Your task to perform on an android device: How do I get to the nearest Starbucks? Image 0: 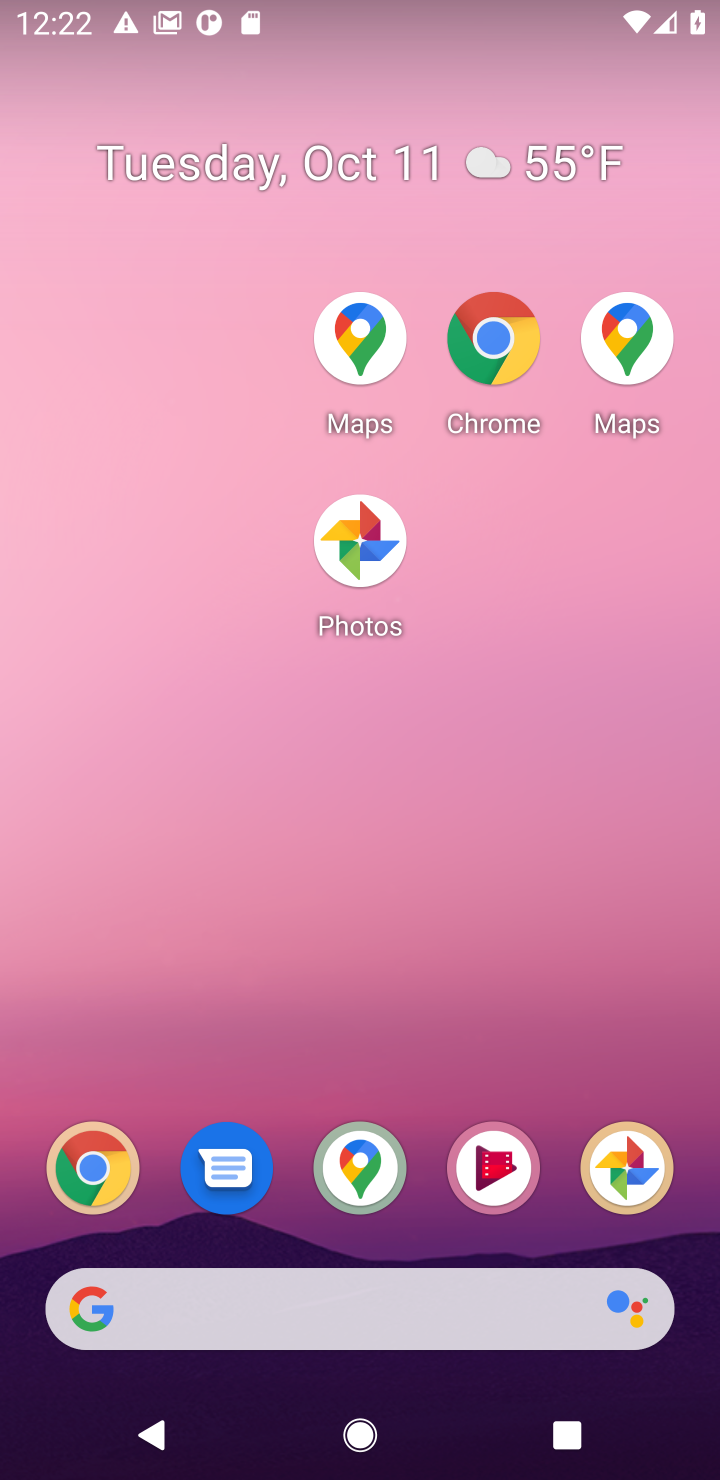
Step 0: drag from (485, 862) to (556, 42)
Your task to perform on an android device: How do I get to the nearest Starbucks? Image 1: 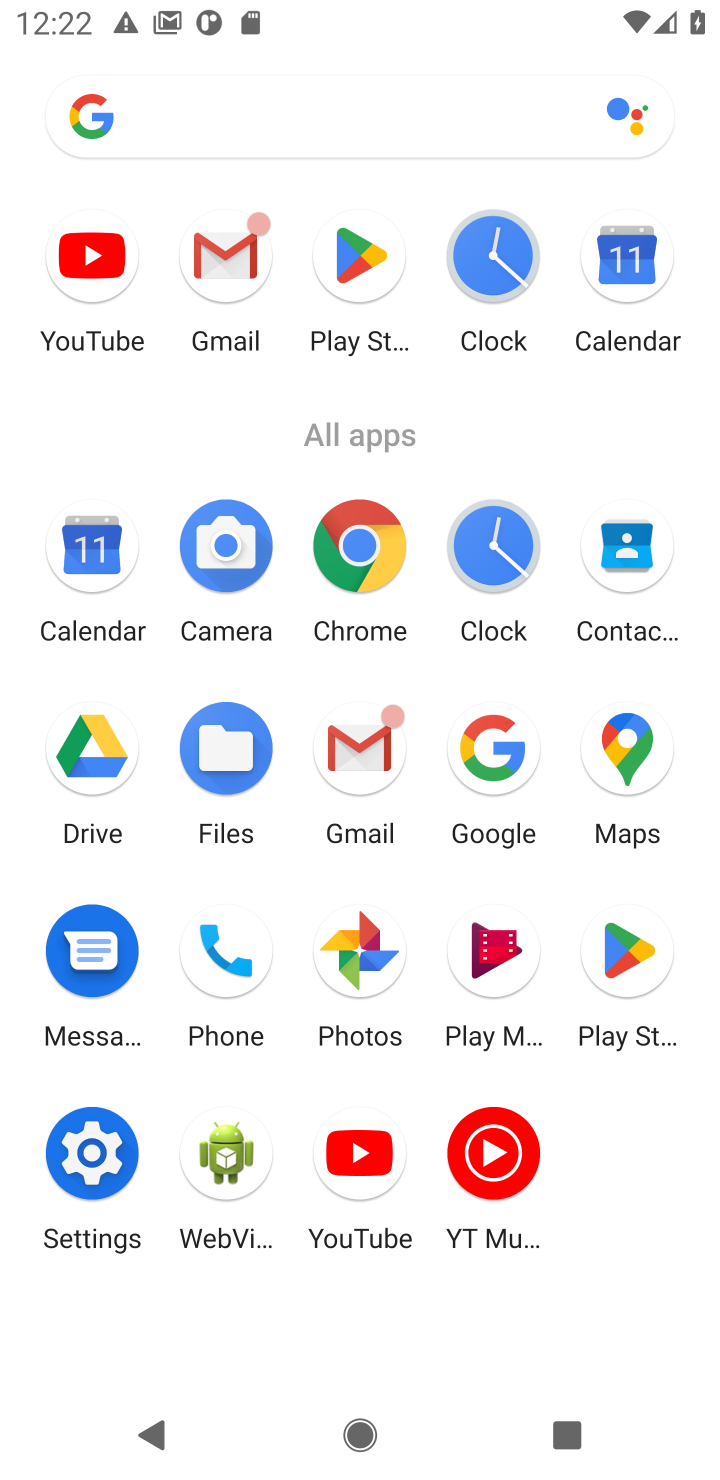
Step 1: click (487, 798)
Your task to perform on an android device: How do I get to the nearest Starbucks? Image 2: 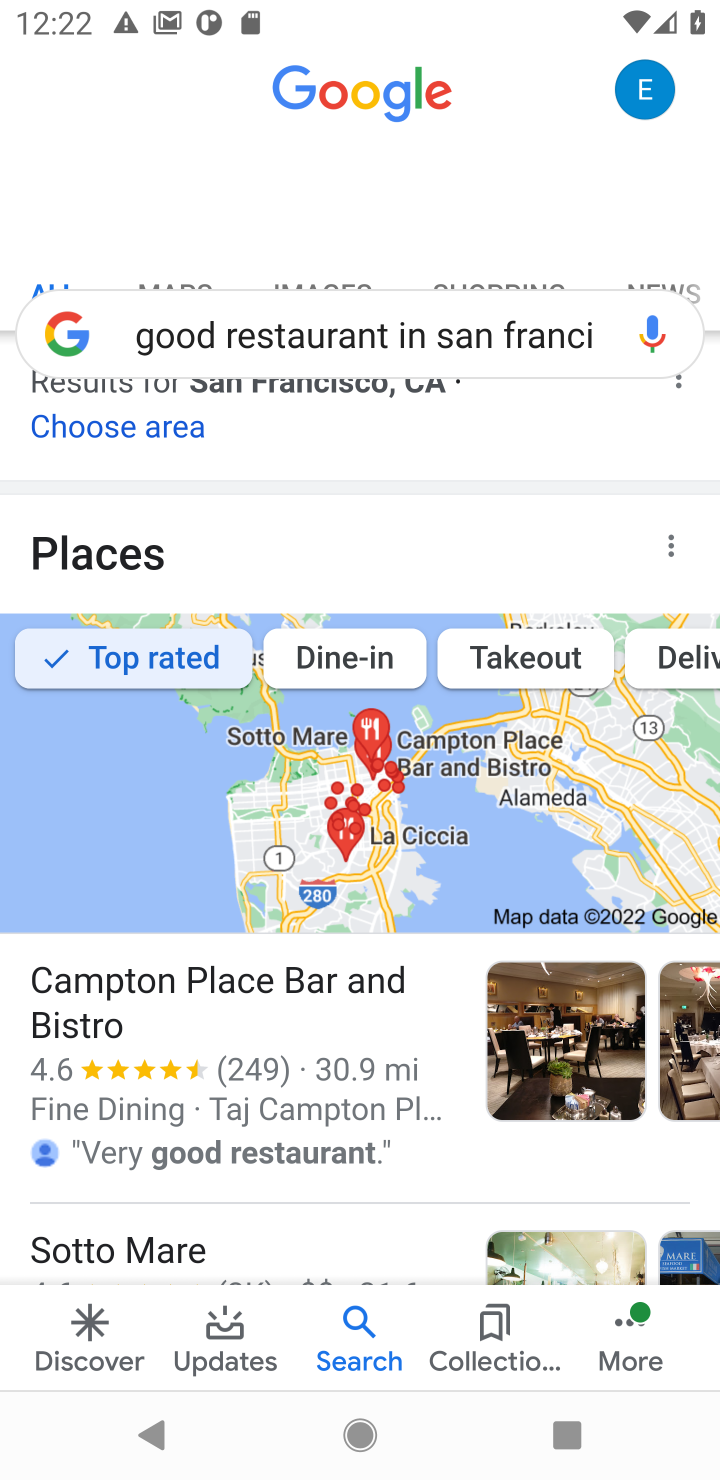
Step 2: click (396, 332)
Your task to perform on an android device: How do I get to the nearest Starbucks? Image 3: 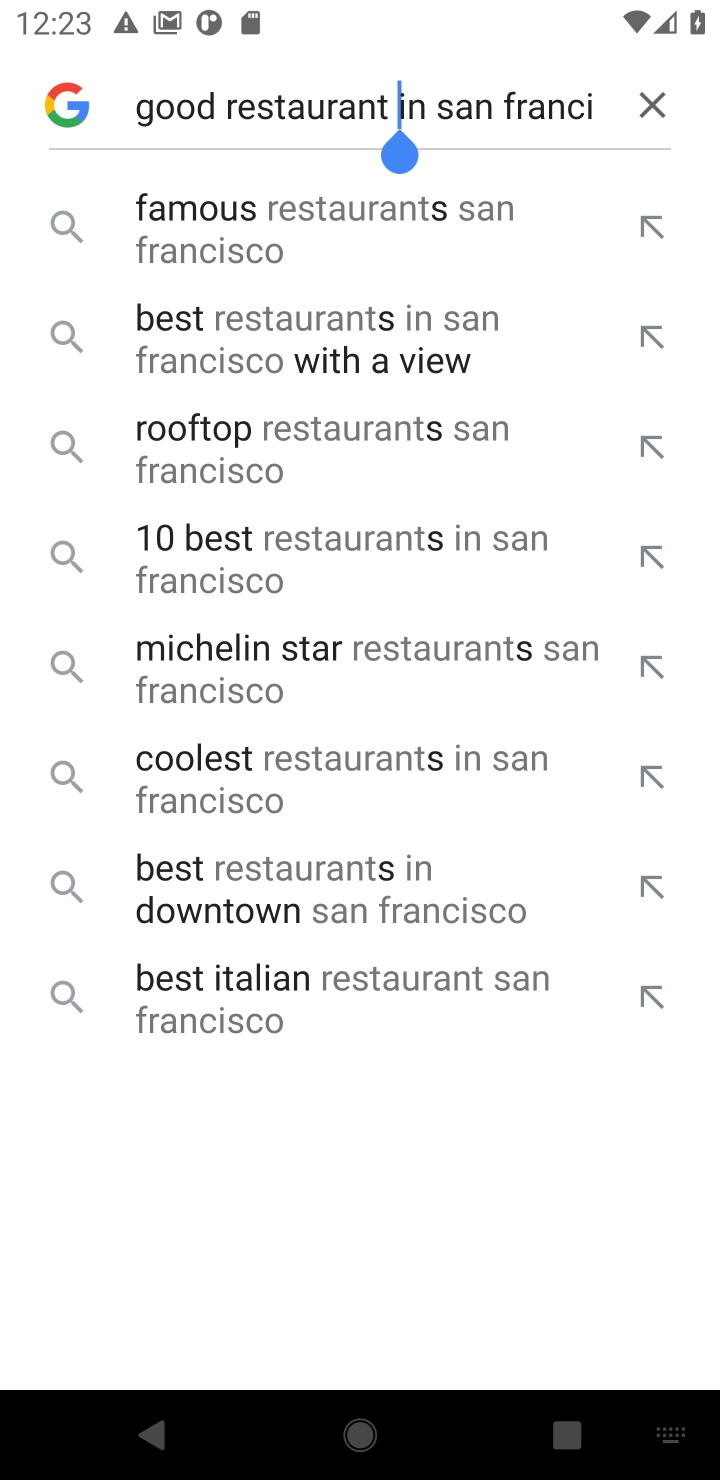
Step 3: click (651, 122)
Your task to perform on an android device: How do I get to the nearest Starbucks? Image 4: 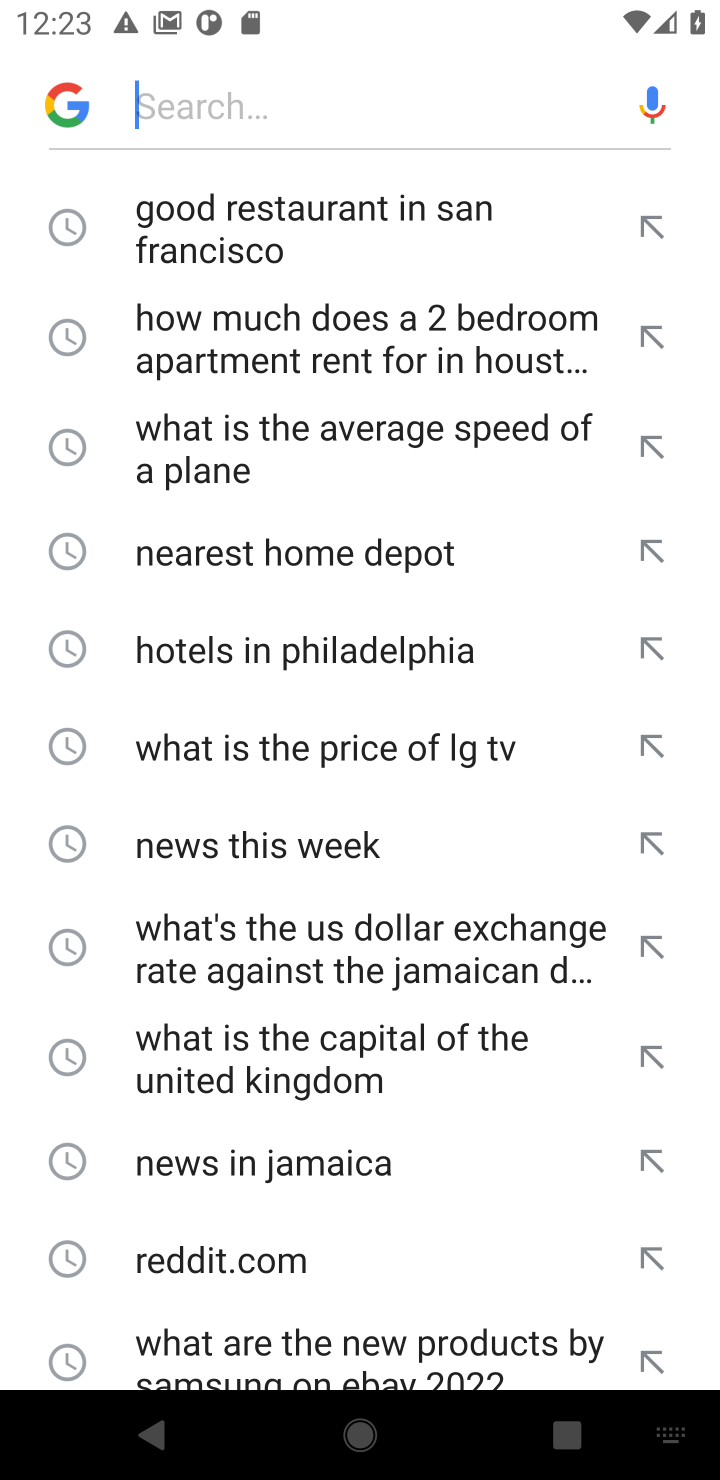
Step 4: type "nearest Starbucks"
Your task to perform on an android device: How do I get to the nearest Starbucks? Image 5: 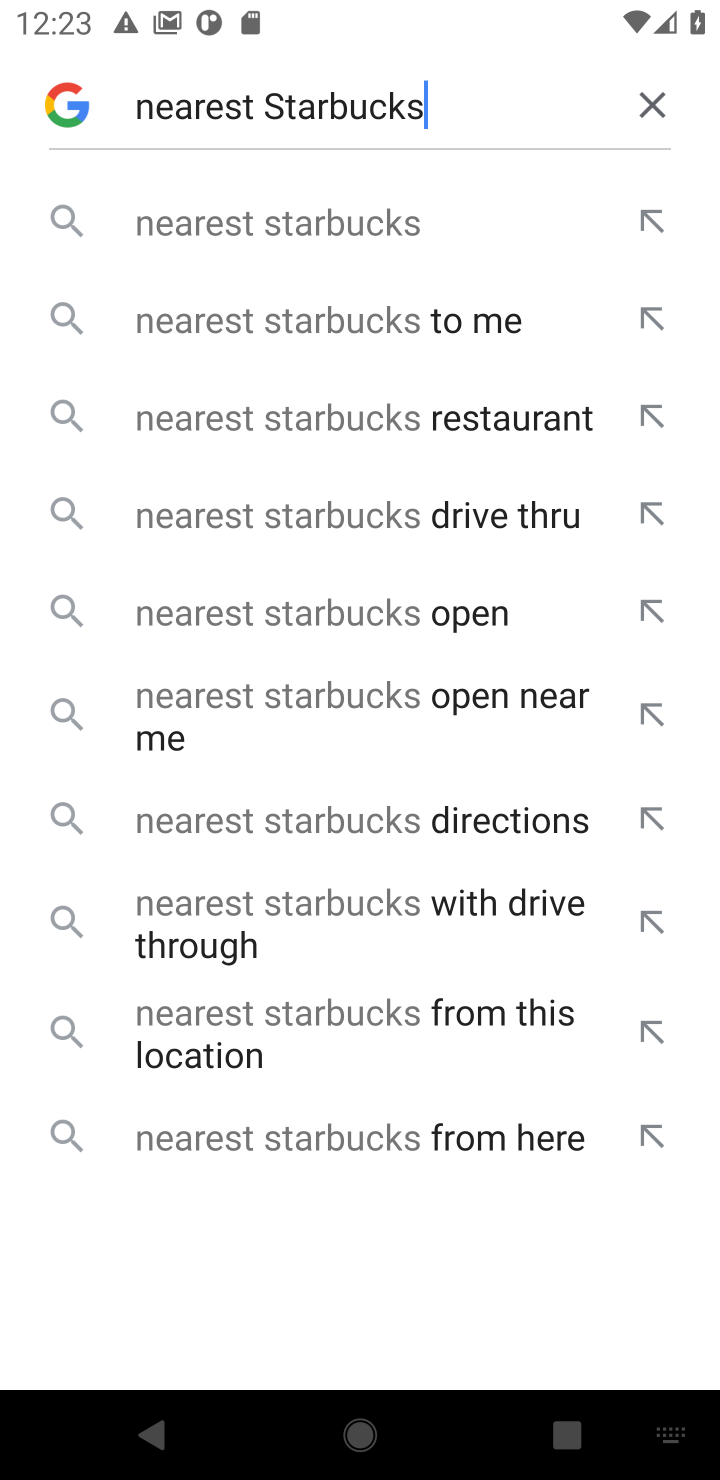
Step 5: click (457, 225)
Your task to perform on an android device: How do I get to the nearest Starbucks? Image 6: 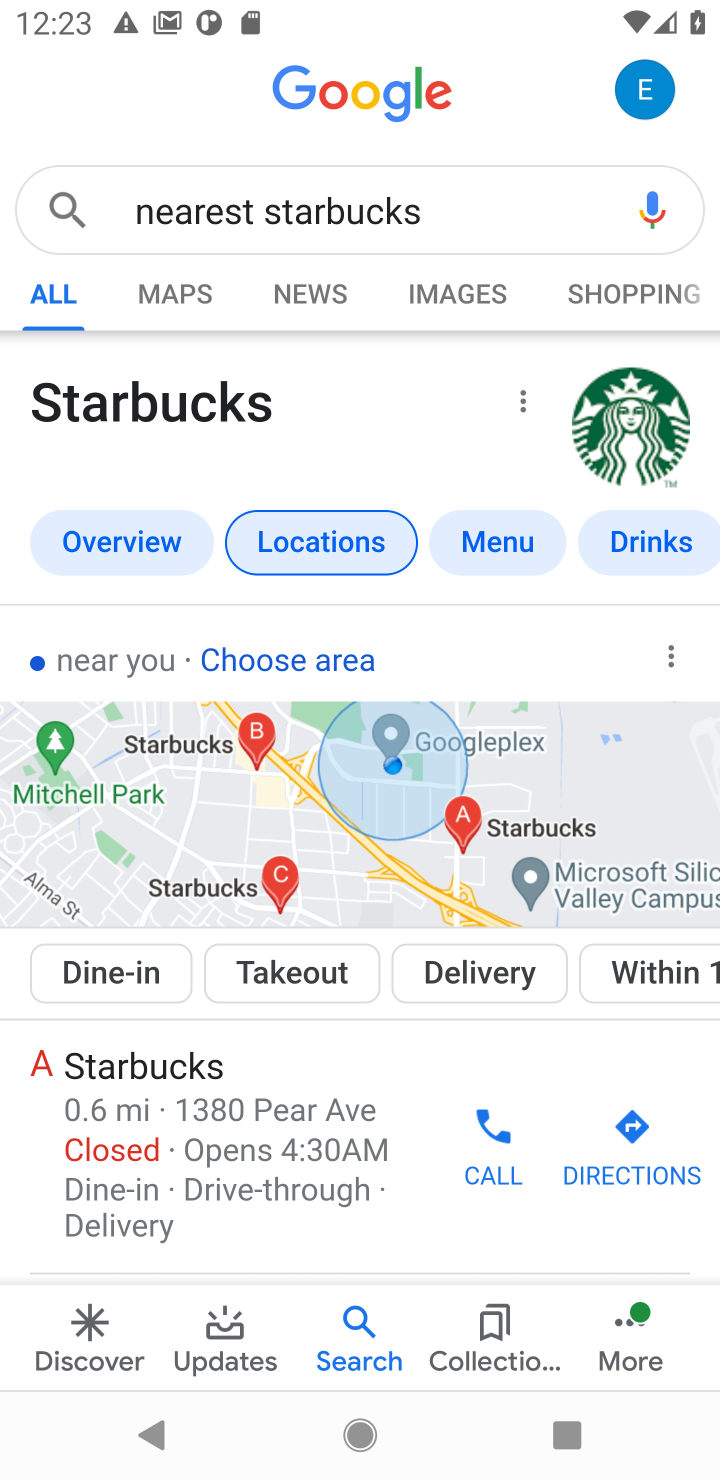
Step 6: click (632, 1154)
Your task to perform on an android device: How do I get to the nearest Starbucks? Image 7: 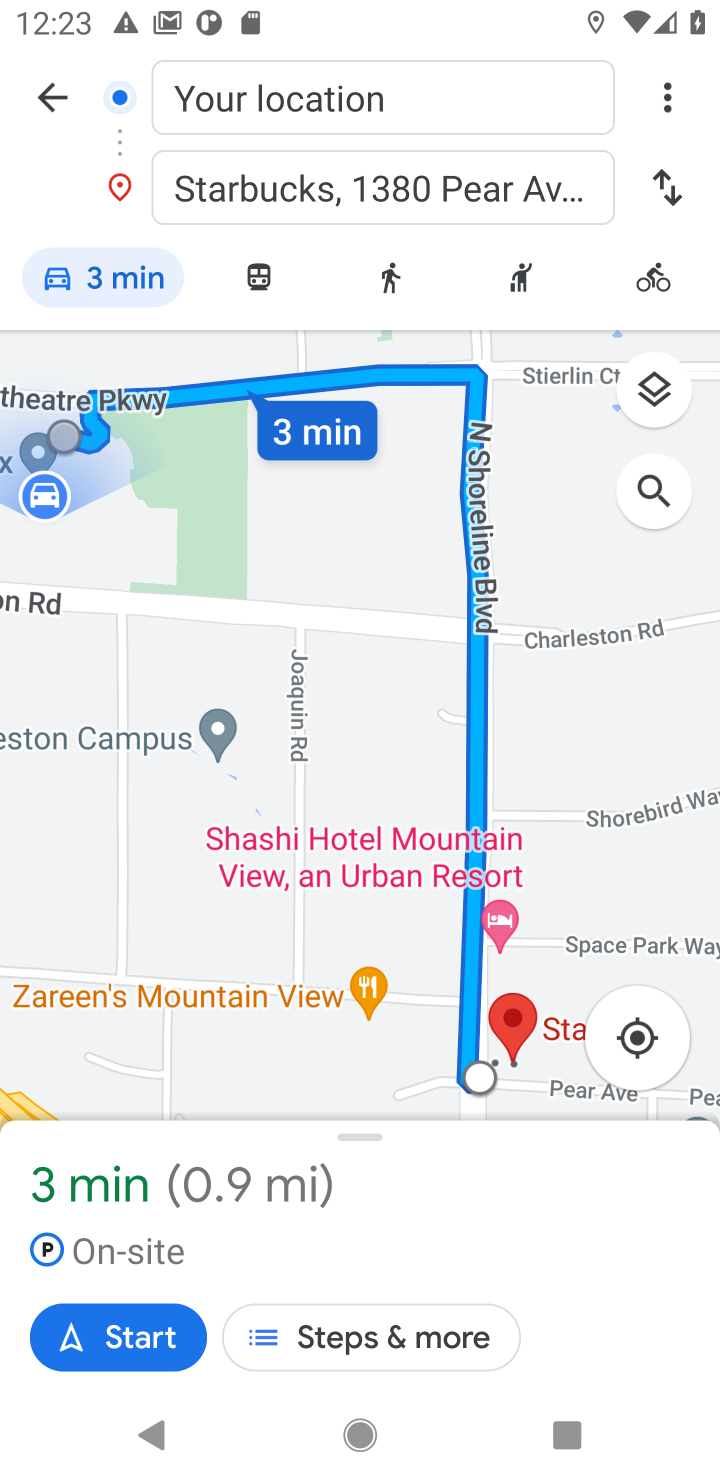
Step 7: task complete